Your task to perform on an android device: Go to display settings Image 0: 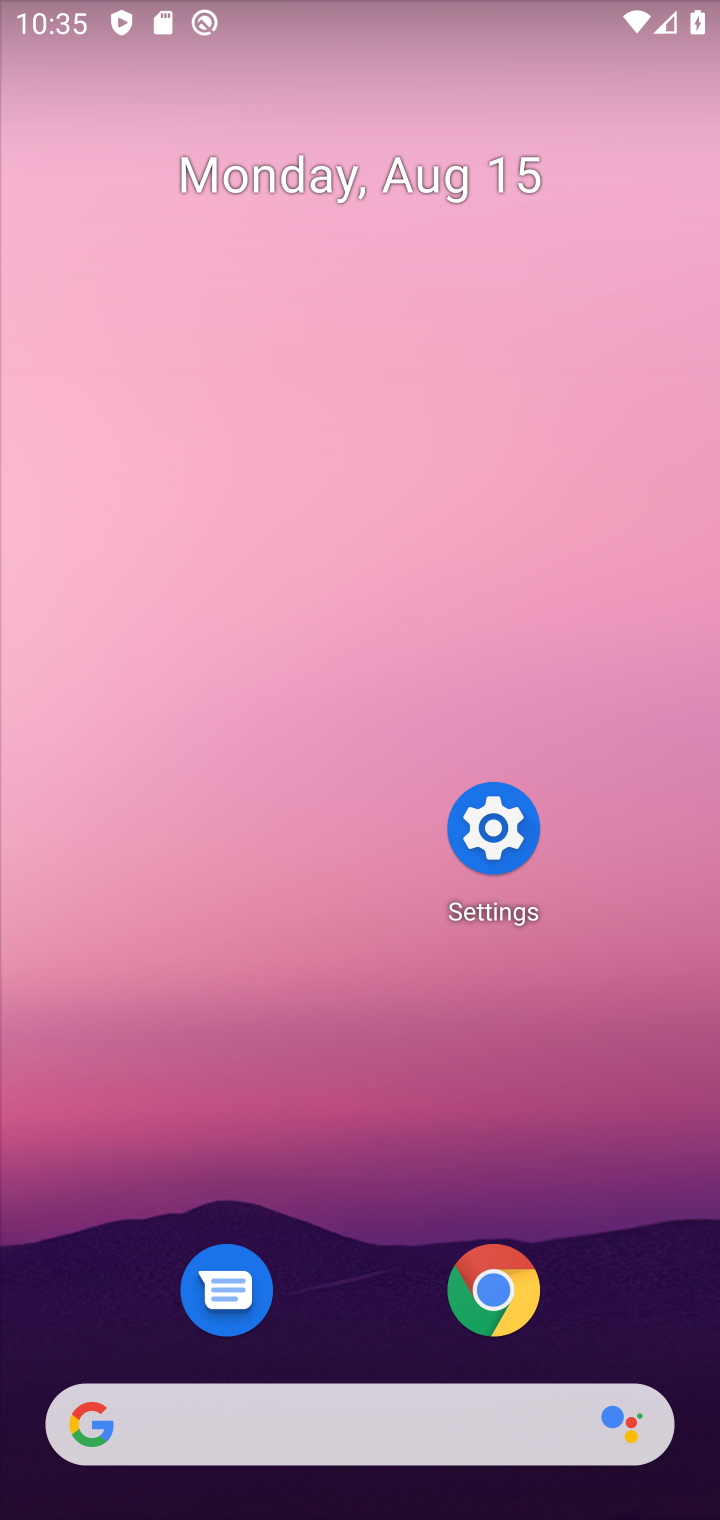
Step 0: press home button
Your task to perform on an android device: Go to display settings Image 1: 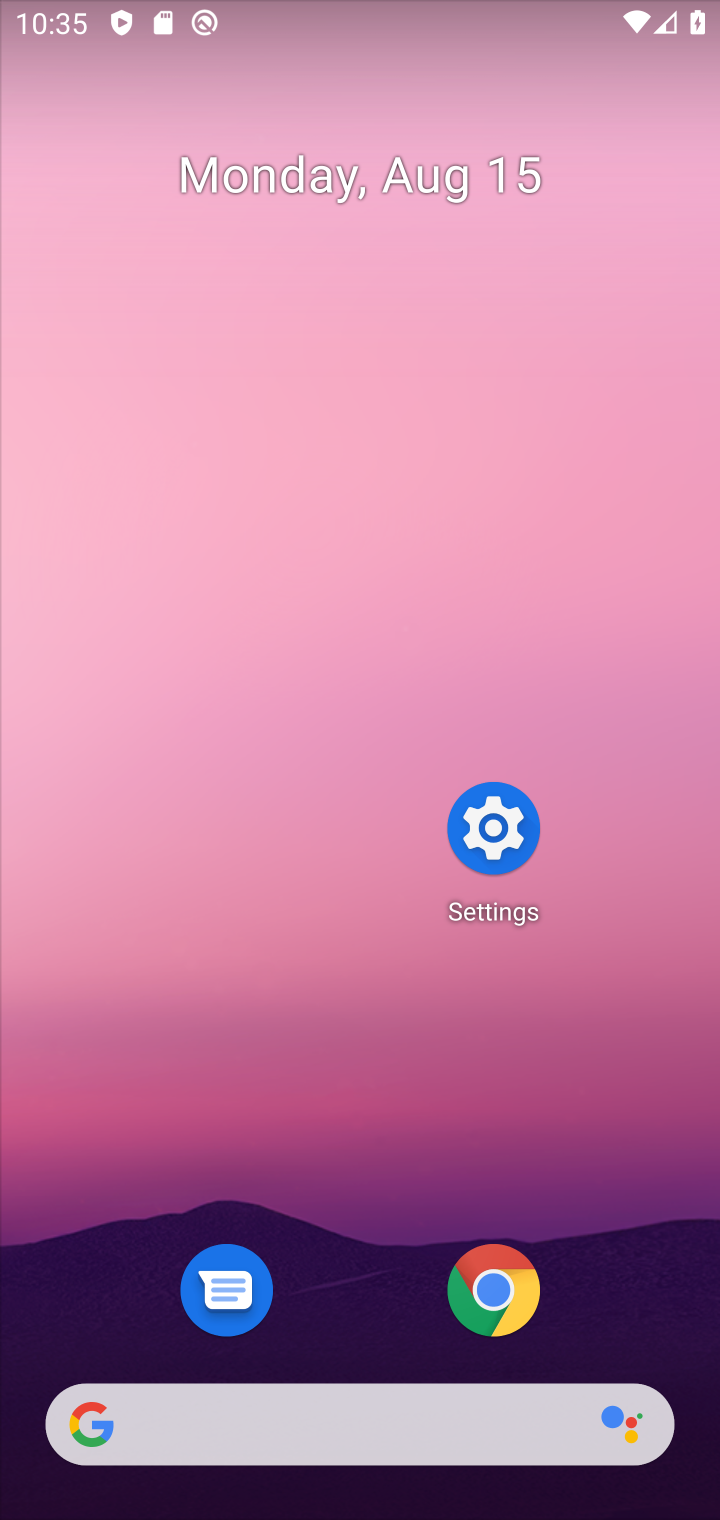
Step 1: click (502, 819)
Your task to perform on an android device: Go to display settings Image 2: 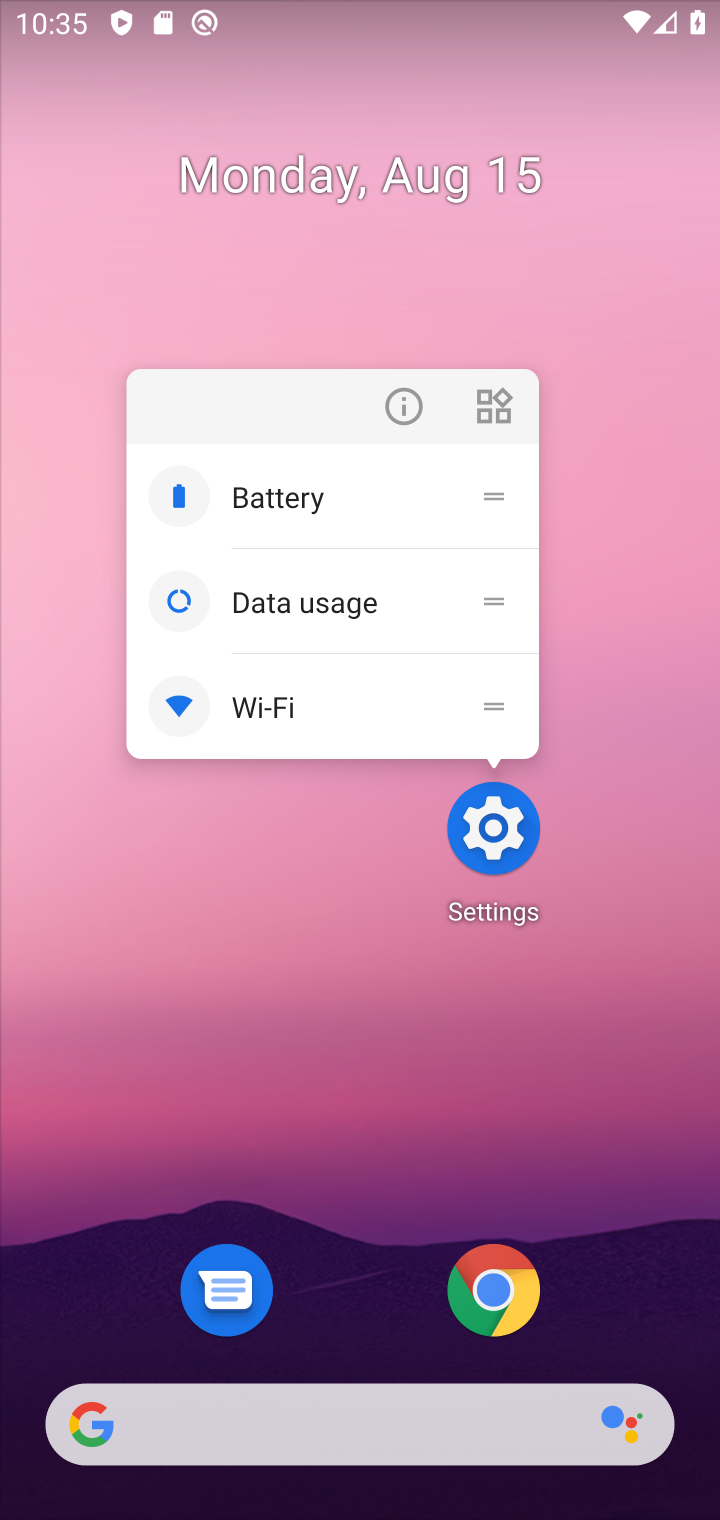
Step 2: click (502, 819)
Your task to perform on an android device: Go to display settings Image 3: 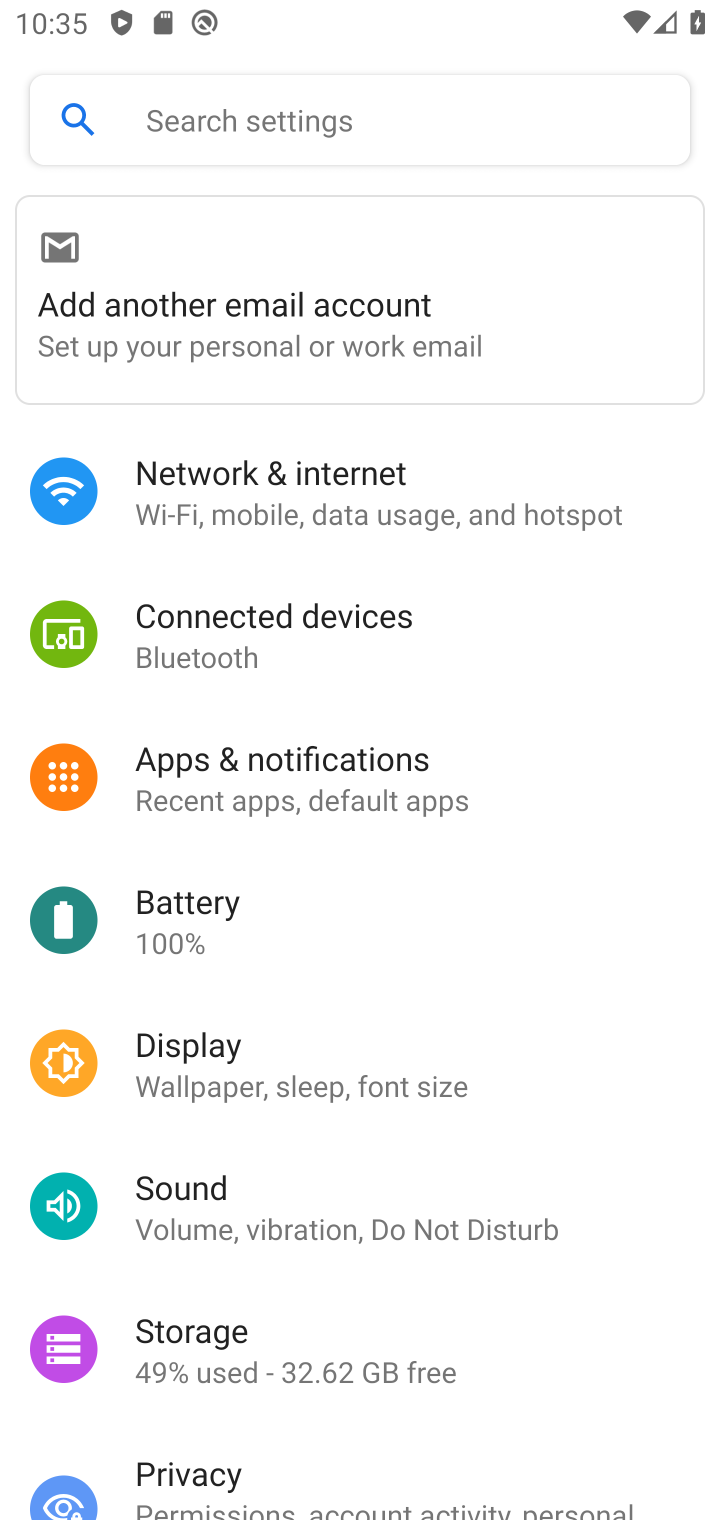
Step 3: click (216, 1054)
Your task to perform on an android device: Go to display settings Image 4: 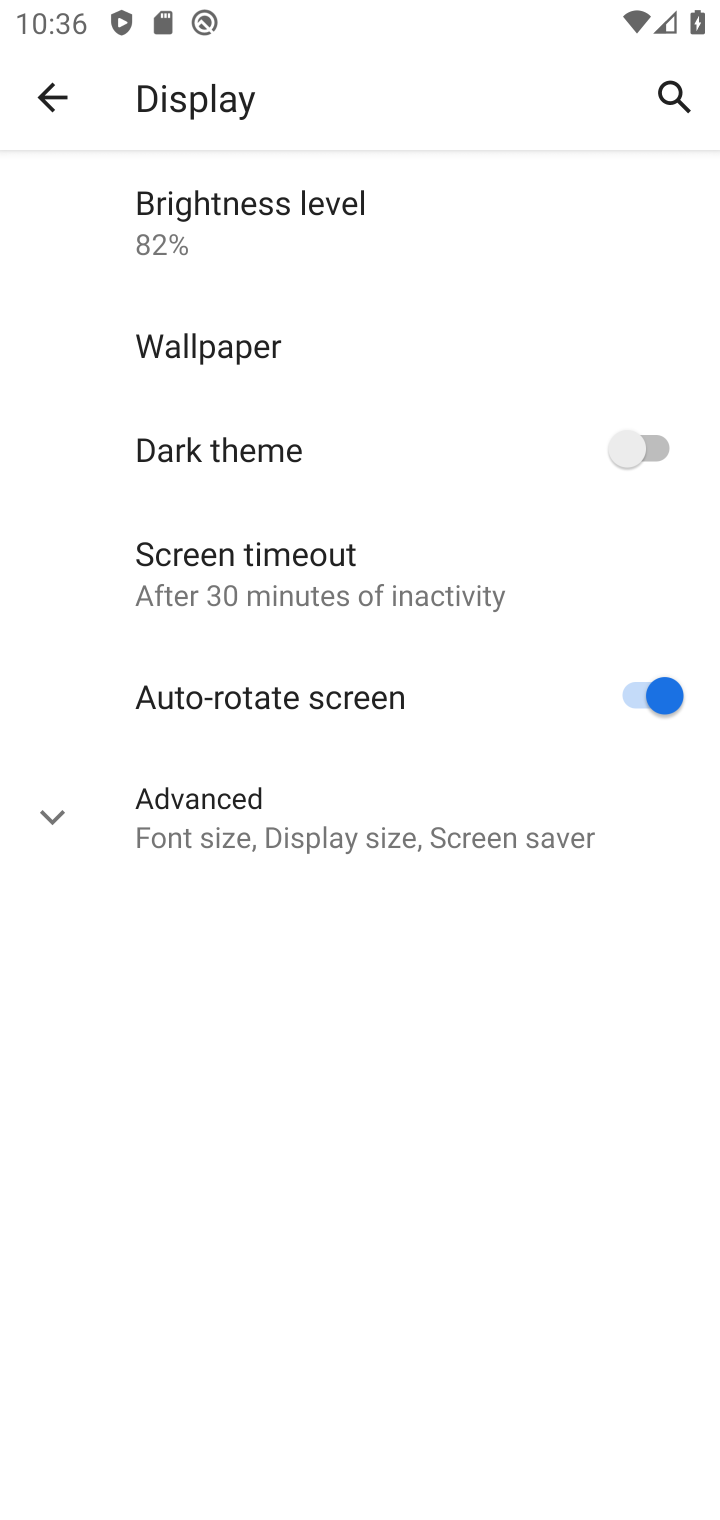
Step 4: task complete